Your task to perform on an android device: Go to CNN.com Image 0: 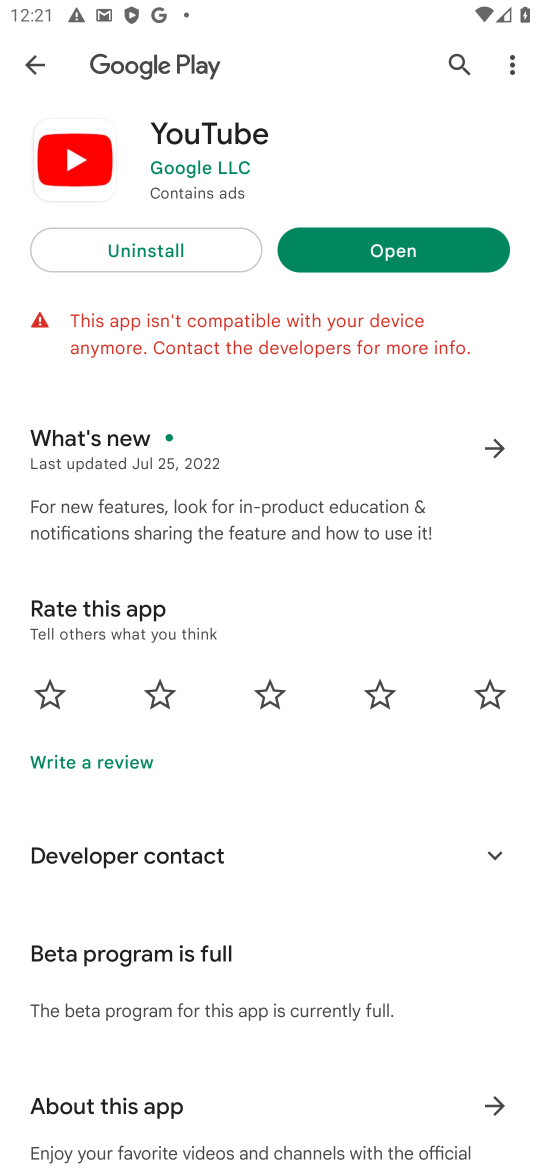
Step 0: press home button
Your task to perform on an android device: Go to CNN.com Image 1: 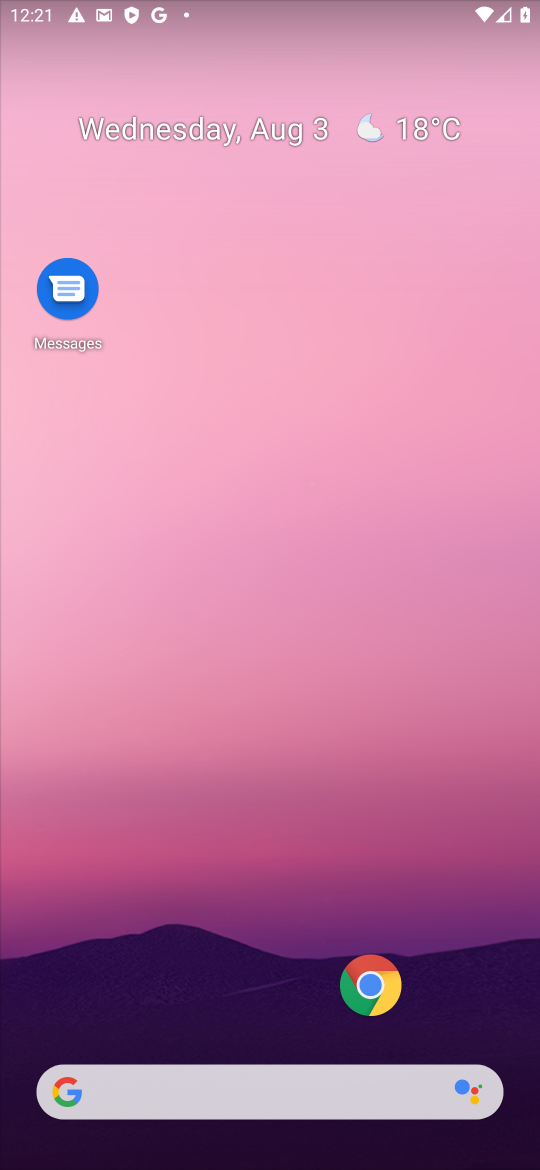
Step 1: click (382, 1001)
Your task to perform on an android device: Go to CNN.com Image 2: 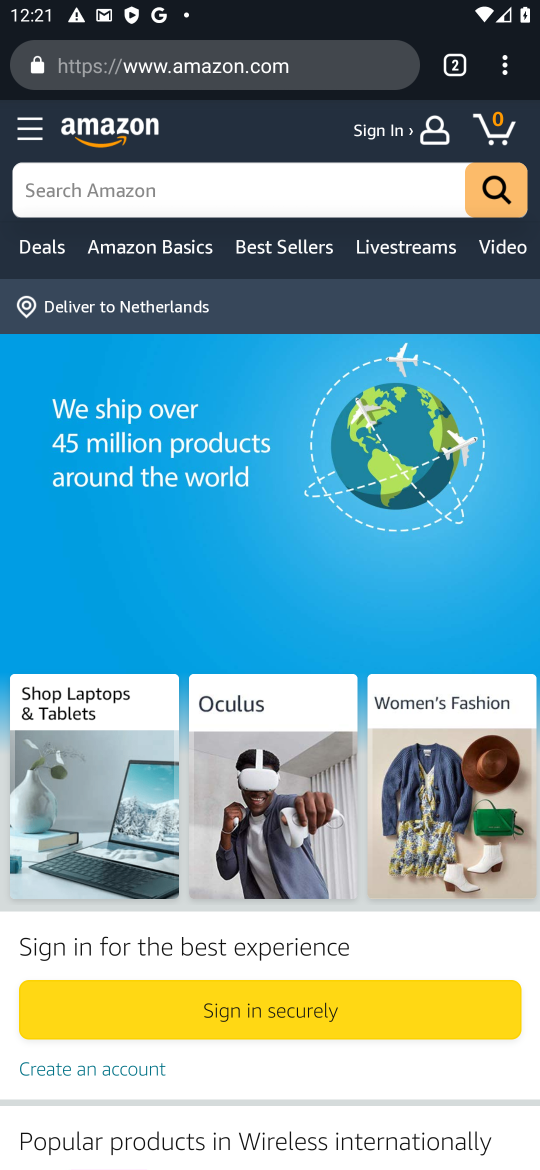
Step 2: click (304, 61)
Your task to perform on an android device: Go to CNN.com Image 3: 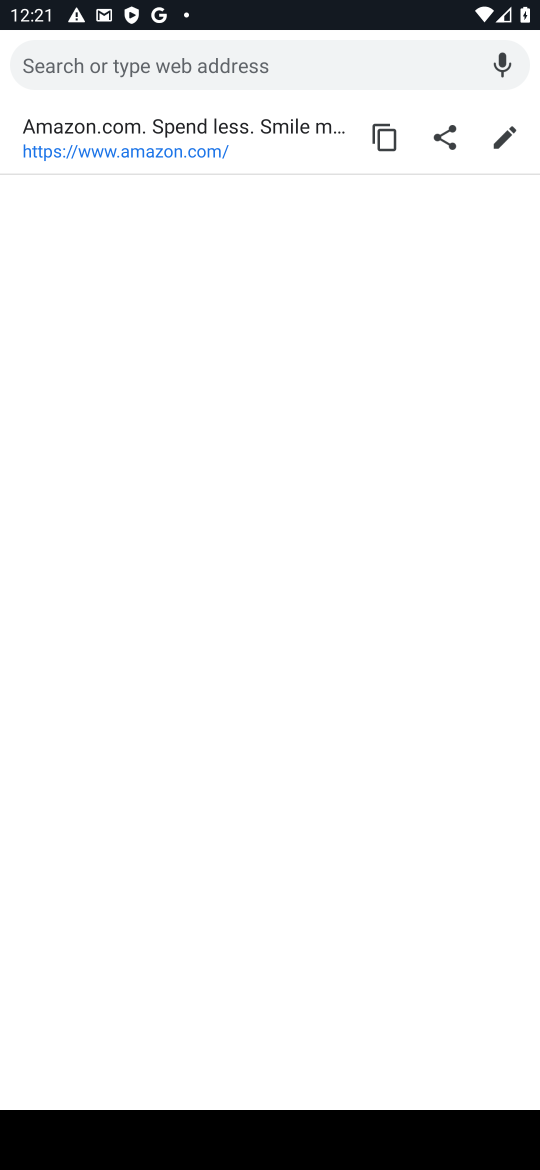
Step 3: type "cnn.com"
Your task to perform on an android device: Go to CNN.com Image 4: 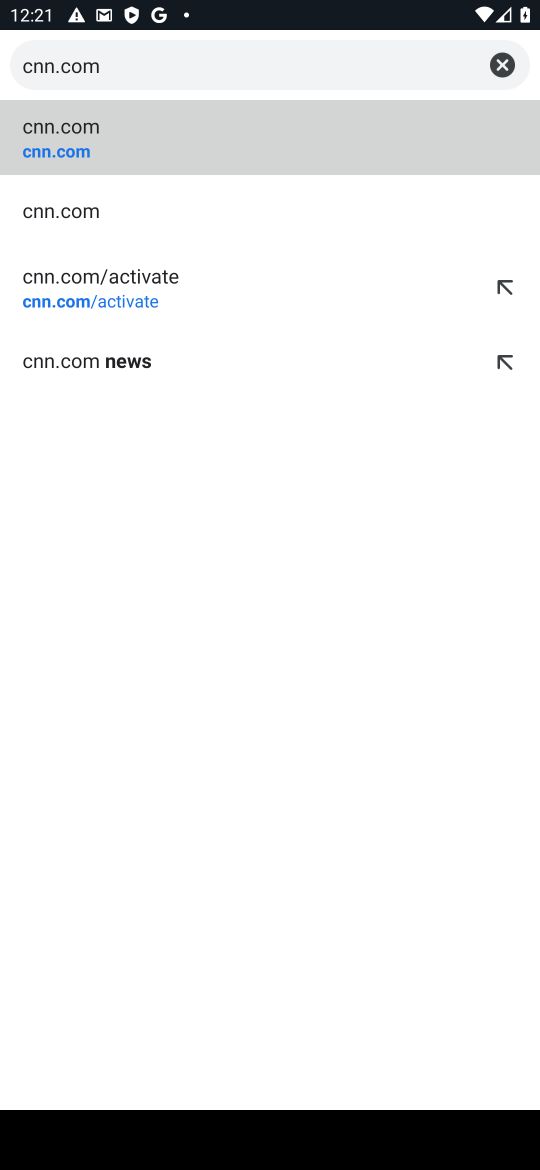
Step 4: click (147, 163)
Your task to perform on an android device: Go to CNN.com Image 5: 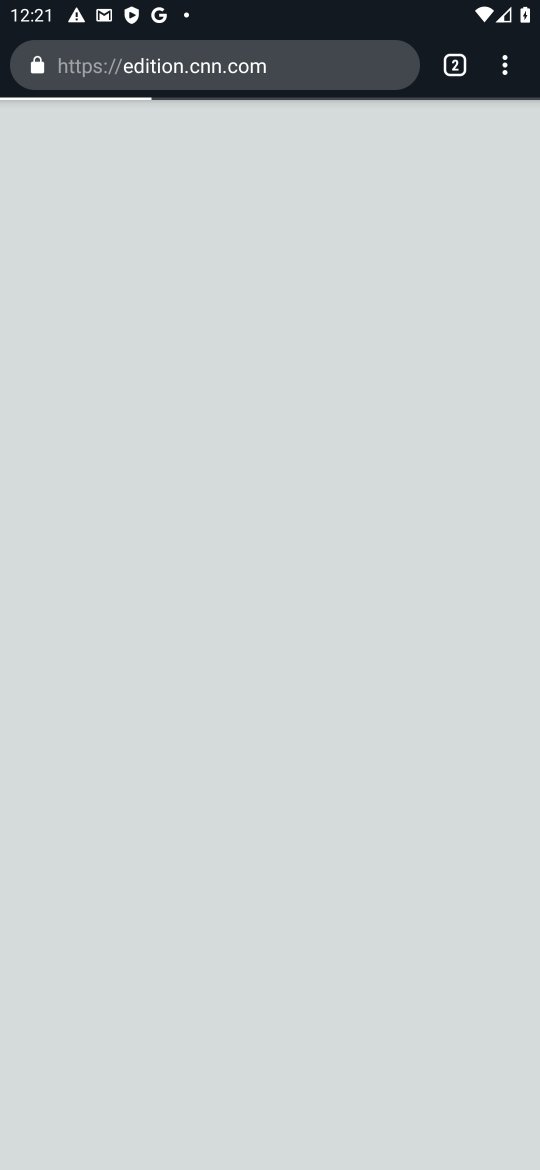
Step 5: task complete